Your task to perform on an android device: change the clock display to digital Image 0: 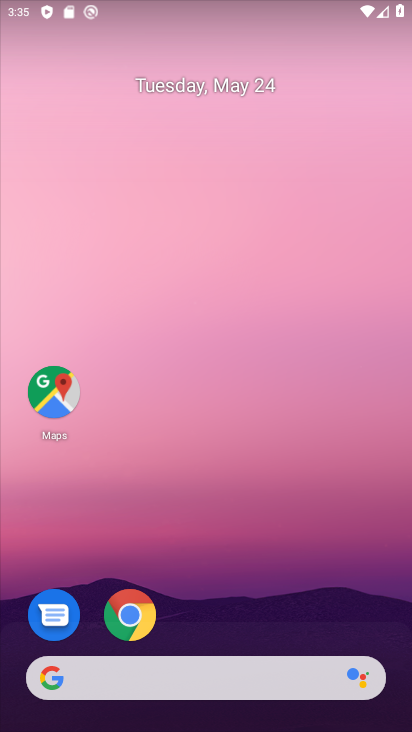
Step 0: drag from (209, 658) to (253, 73)
Your task to perform on an android device: change the clock display to digital Image 1: 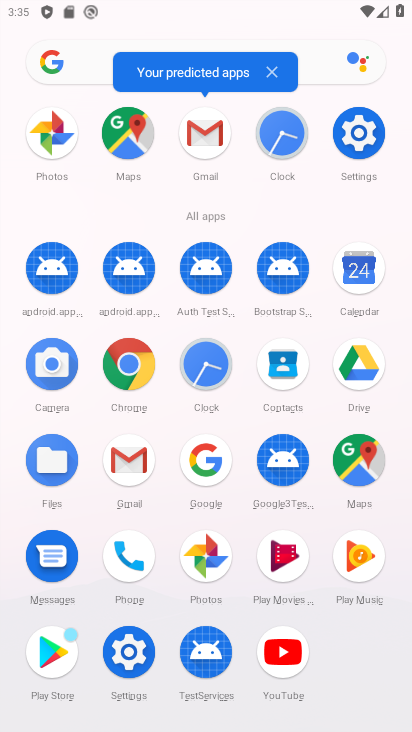
Step 1: click (190, 371)
Your task to perform on an android device: change the clock display to digital Image 2: 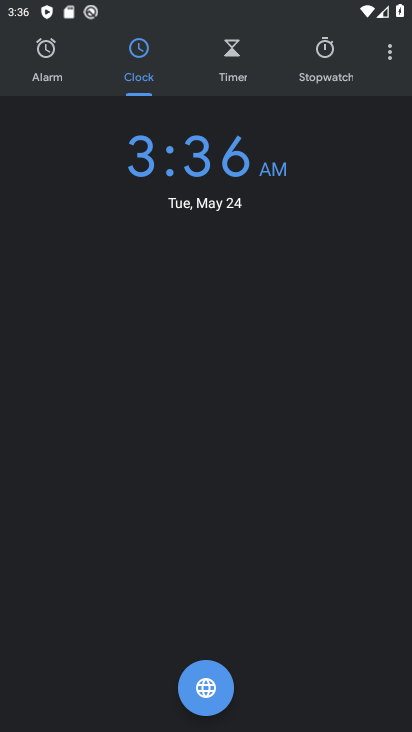
Step 2: click (398, 44)
Your task to perform on an android device: change the clock display to digital Image 3: 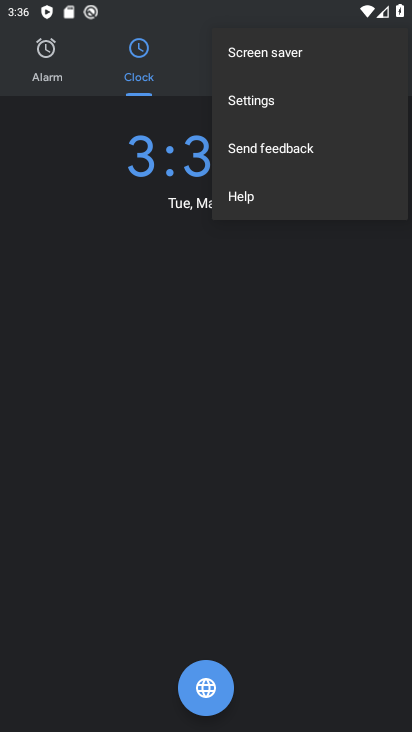
Step 3: click (310, 118)
Your task to perform on an android device: change the clock display to digital Image 4: 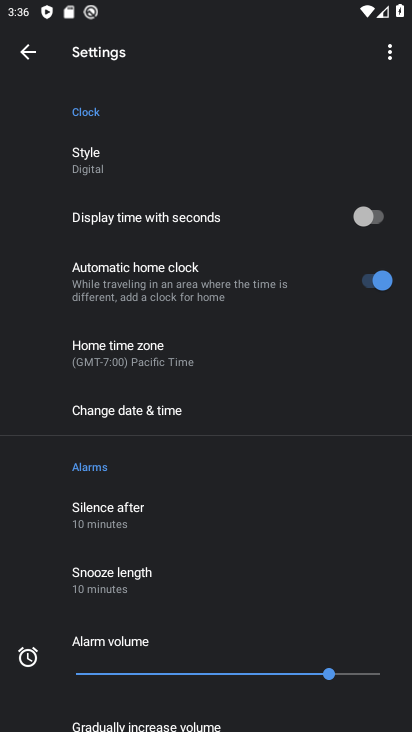
Step 4: task complete